Your task to perform on an android device: open chrome privacy settings Image 0: 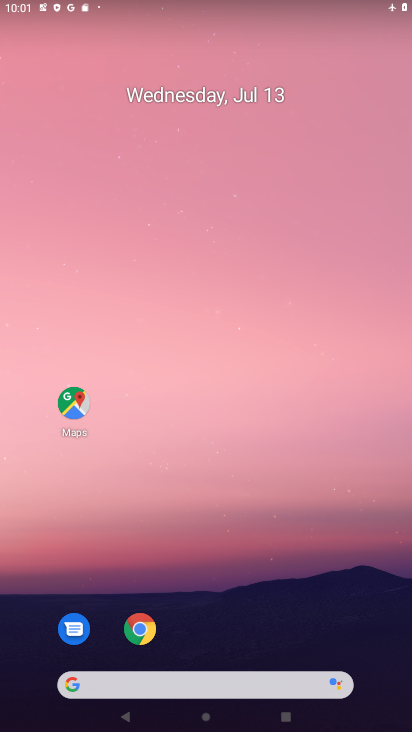
Step 0: click (141, 640)
Your task to perform on an android device: open chrome privacy settings Image 1: 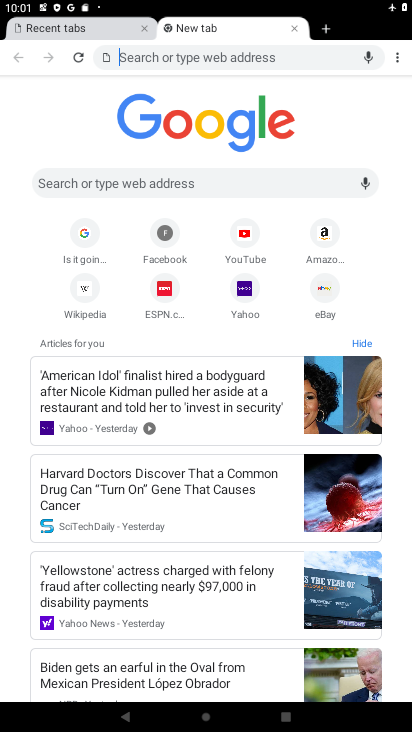
Step 1: click (406, 66)
Your task to perform on an android device: open chrome privacy settings Image 2: 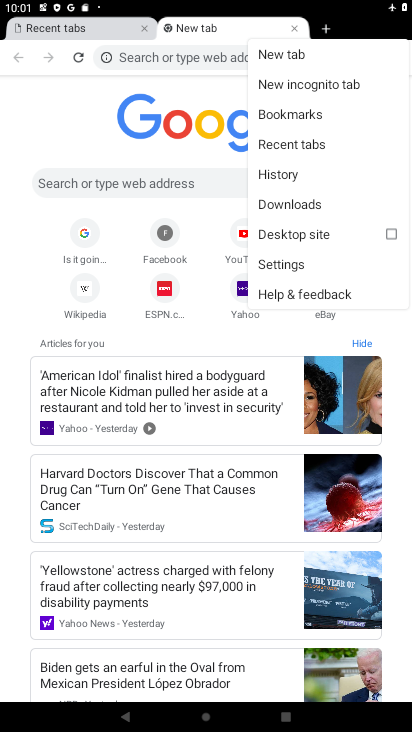
Step 2: click (313, 260)
Your task to perform on an android device: open chrome privacy settings Image 3: 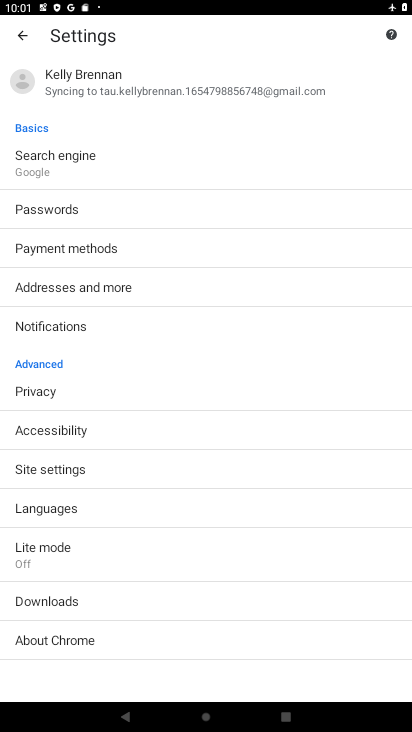
Step 3: click (46, 393)
Your task to perform on an android device: open chrome privacy settings Image 4: 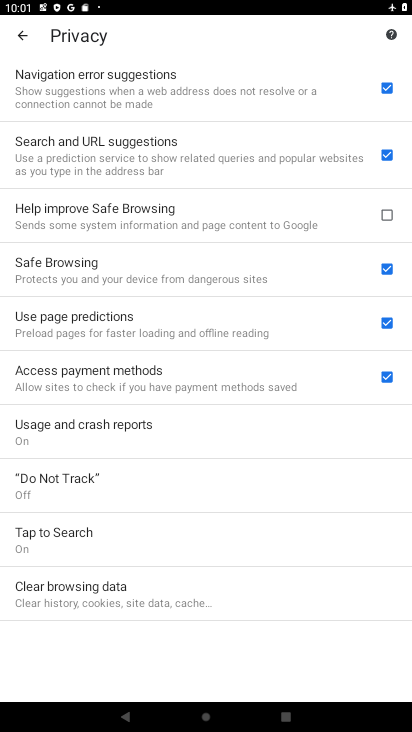
Step 4: task complete